Your task to perform on an android device: Open the phone app and click the voicemail tab. Image 0: 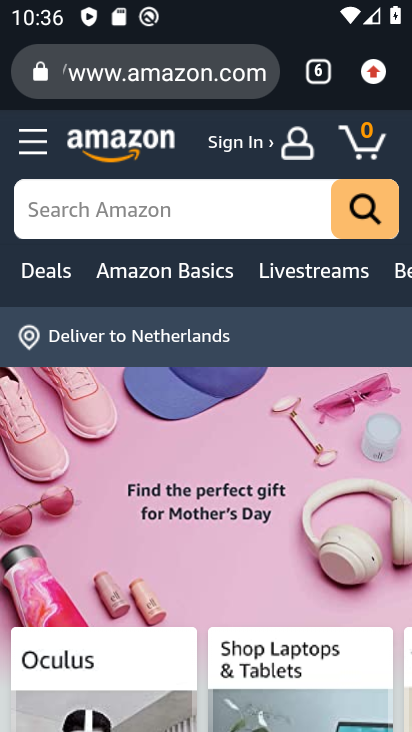
Step 0: press home button
Your task to perform on an android device: Open the phone app and click the voicemail tab. Image 1: 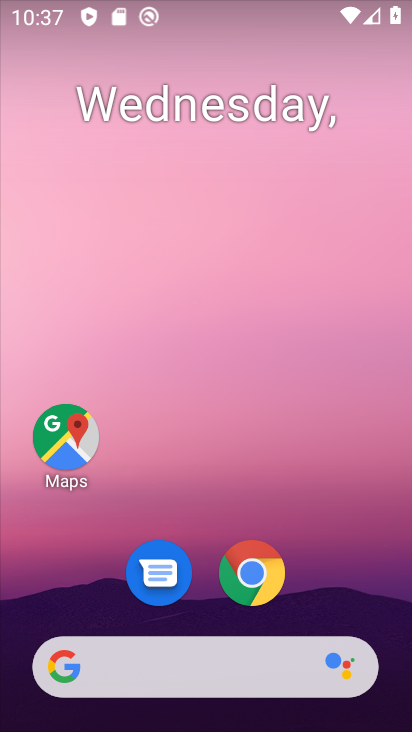
Step 1: drag from (401, 491) to (390, 205)
Your task to perform on an android device: Open the phone app and click the voicemail tab. Image 2: 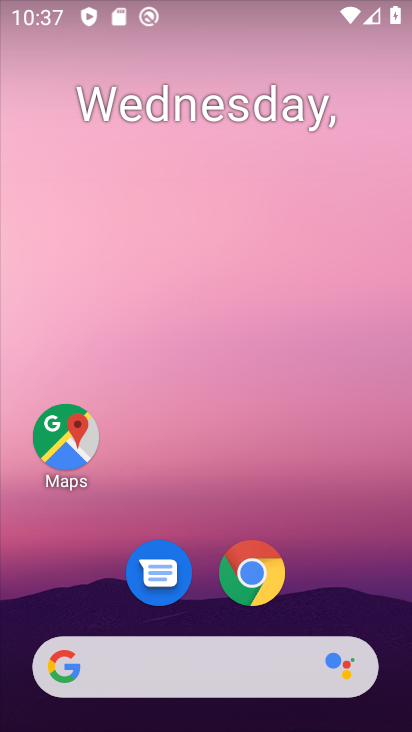
Step 2: drag from (376, 368) to (356, 196)
Your task to perform on an android device: Open the phone app and click the voicemail tab. Image 3: 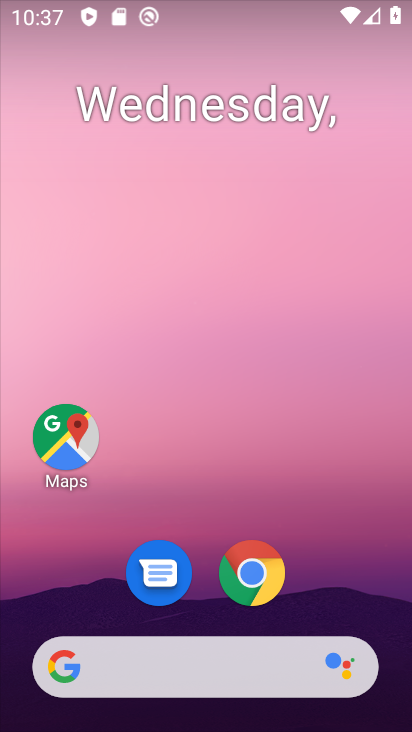
Step 3: click (343, 243)
Your task to perform on an android device: Open the phone app and click the voicemail tab. Image 4: 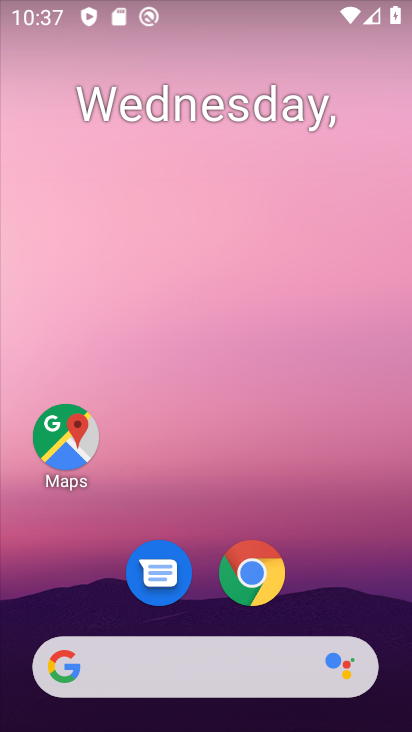
Step 4: click (382, 193)
Your task to perform on an android device: Open the phone app and click the voicemail tab. Image 5: 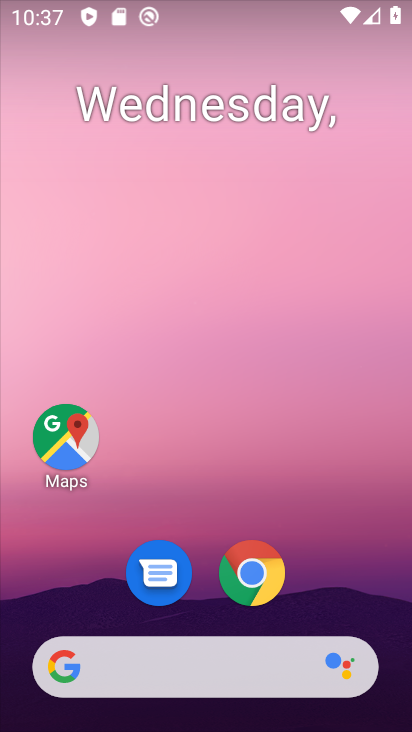
Step 5: click (365, 178)
Your task to perform on an android device: Open the phone app and click the voicemail tab. Image 6: 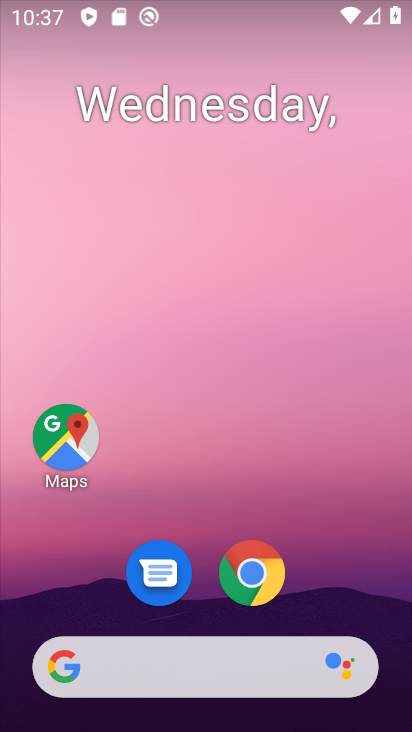
Step 6: drag from (364, 404) to (342, 173)
Your task to perform on an android device: Open the phone app and click the voicemail tab. Image 7: 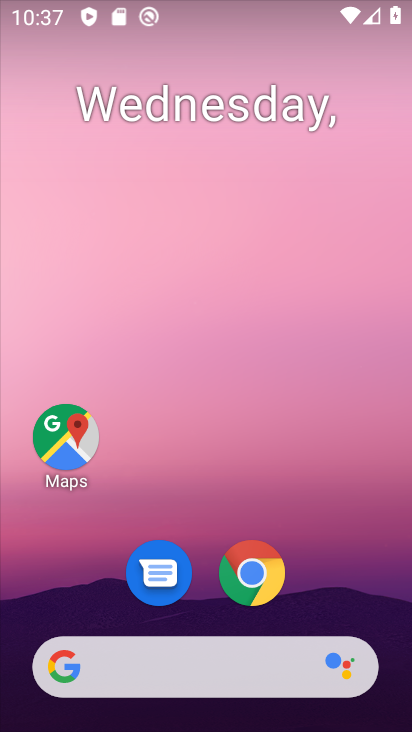
Step 7: drag from (388, 616) to (383, 286)
Your task to perform on an android device: Open the phone app and click the voicemail tab. Image 8: 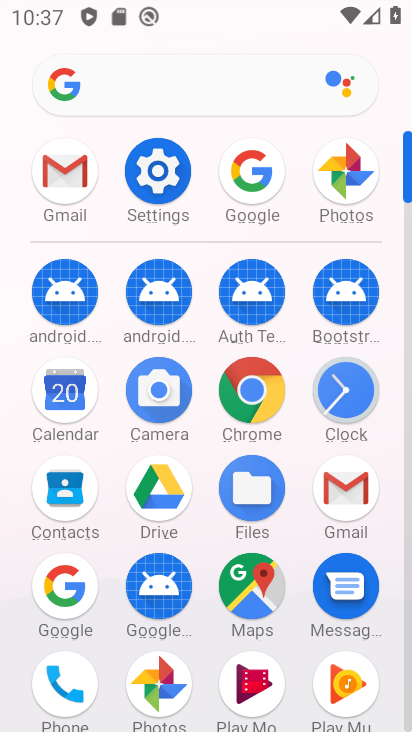
Step 8: click (77, 684)
Your task to perform on an android device: Open the phone app and click the voicemail tab. Image 9: 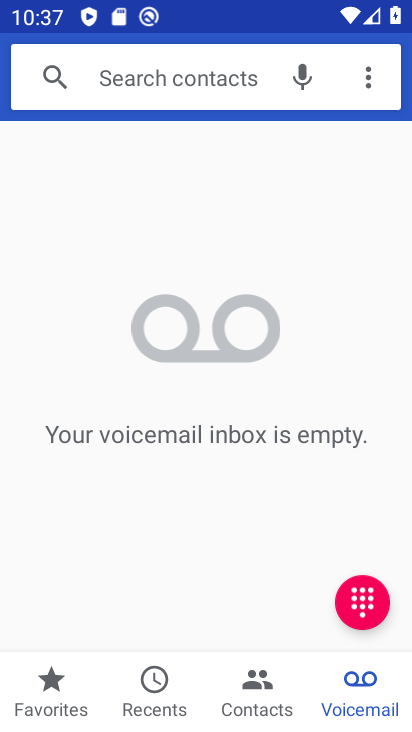
Step 9: click (368, 678)
Your task to perform on an android device: Open the phone app and click the voicemail tab. Image 10: 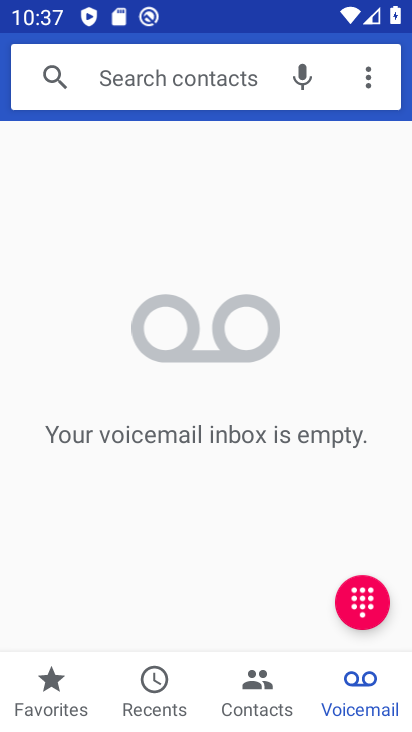
Step 10: task complete